Your task to perform on an android device: open the mobile data screen to see how much data has been used Image 0: 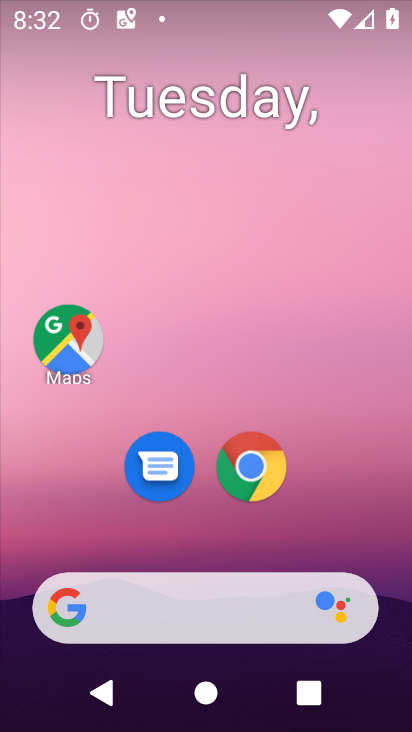
Step 0: drag from (214, 527) to (227, 97)
Your task to perform on an android device: open the mobile data screen to see how much data has been used Image 1: 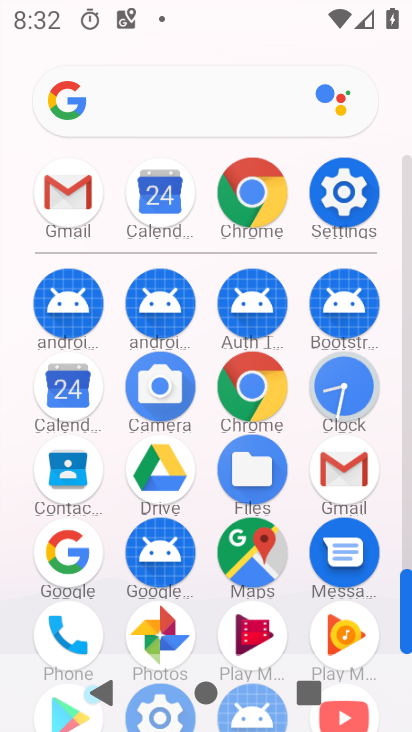
Step 1: click (340, 200)
Your task to perform on an android device: open the mobile data screen to see how much data has been used Image 2: 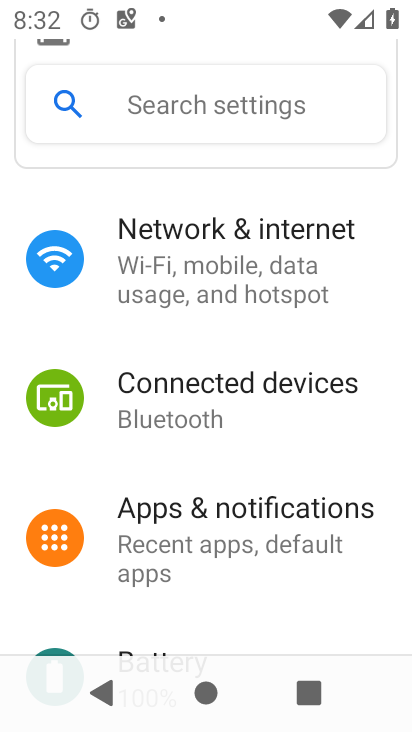
Step 2: click (259, 289)
Your task to perform on an android device: open the mobile data screen to see how much data has been used Image 3: 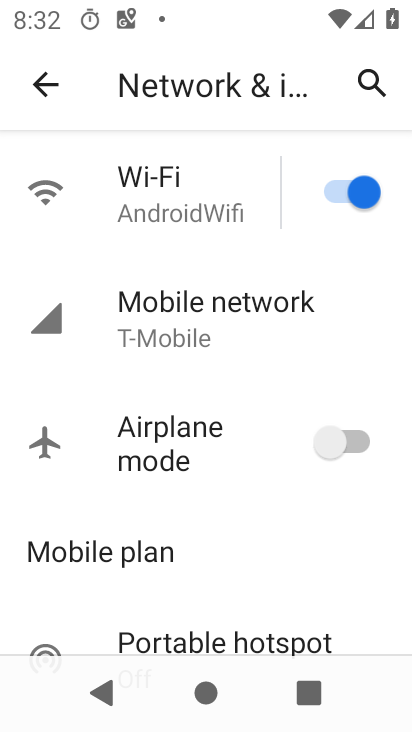
Step 3: click (235, 321)
Your task to perform on an android device: open the mobile data screen to see how much data has been used Image 4: 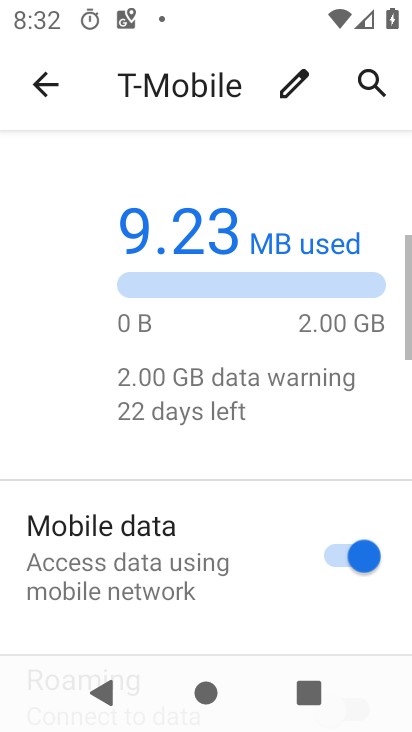
Step 4: drag from (219, 546) to (256, 212)
Your task to perform on an android device: open the mobile data screen to see how much data has been used Image 5: 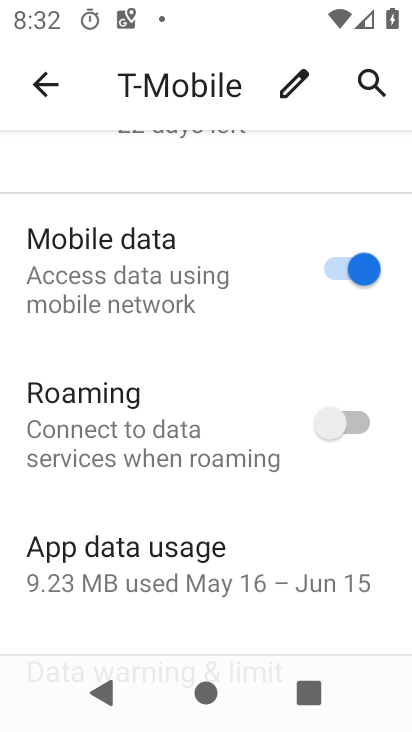
Step 5: click (204, 573)
Your task to perform on an android device: open the mobile data screen to see how much data has been used Image 6: 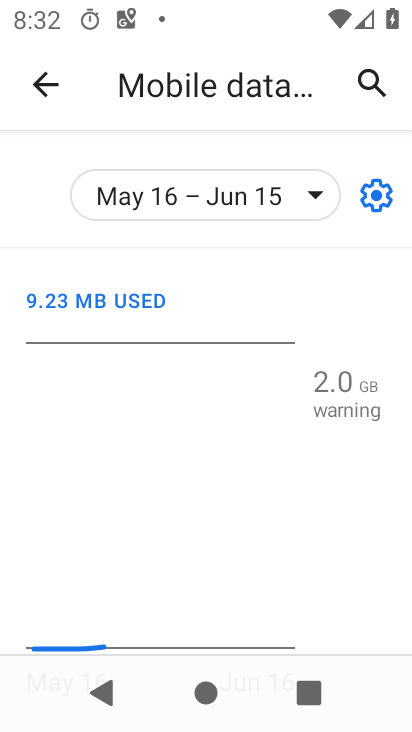
Step 6: task complete